Your task to perform on an android device: Check the settings for the Amazon Alexa app Image 0: 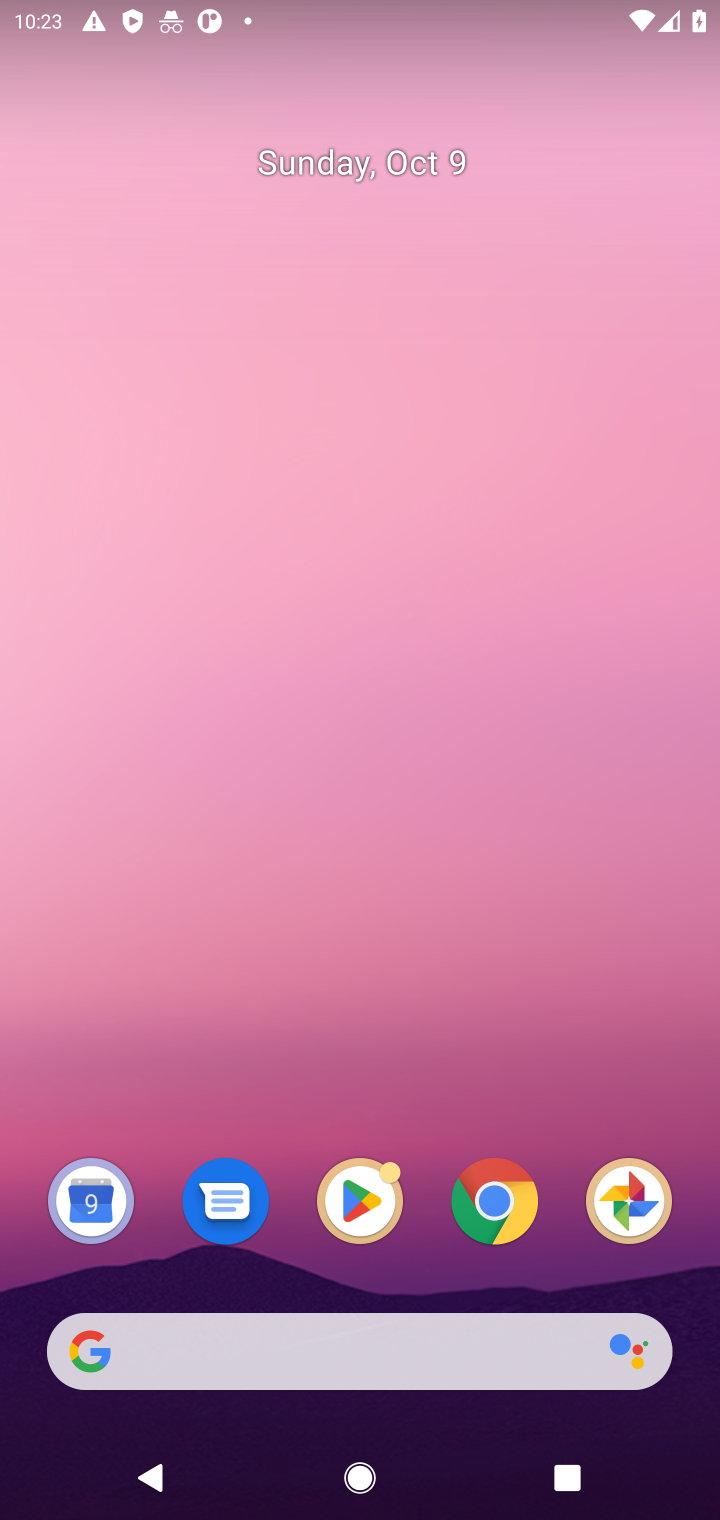
Step 0: click (509, 1204)
Your task to perform on an android device: Check the settings for the Amazon Alexa app Image 1: 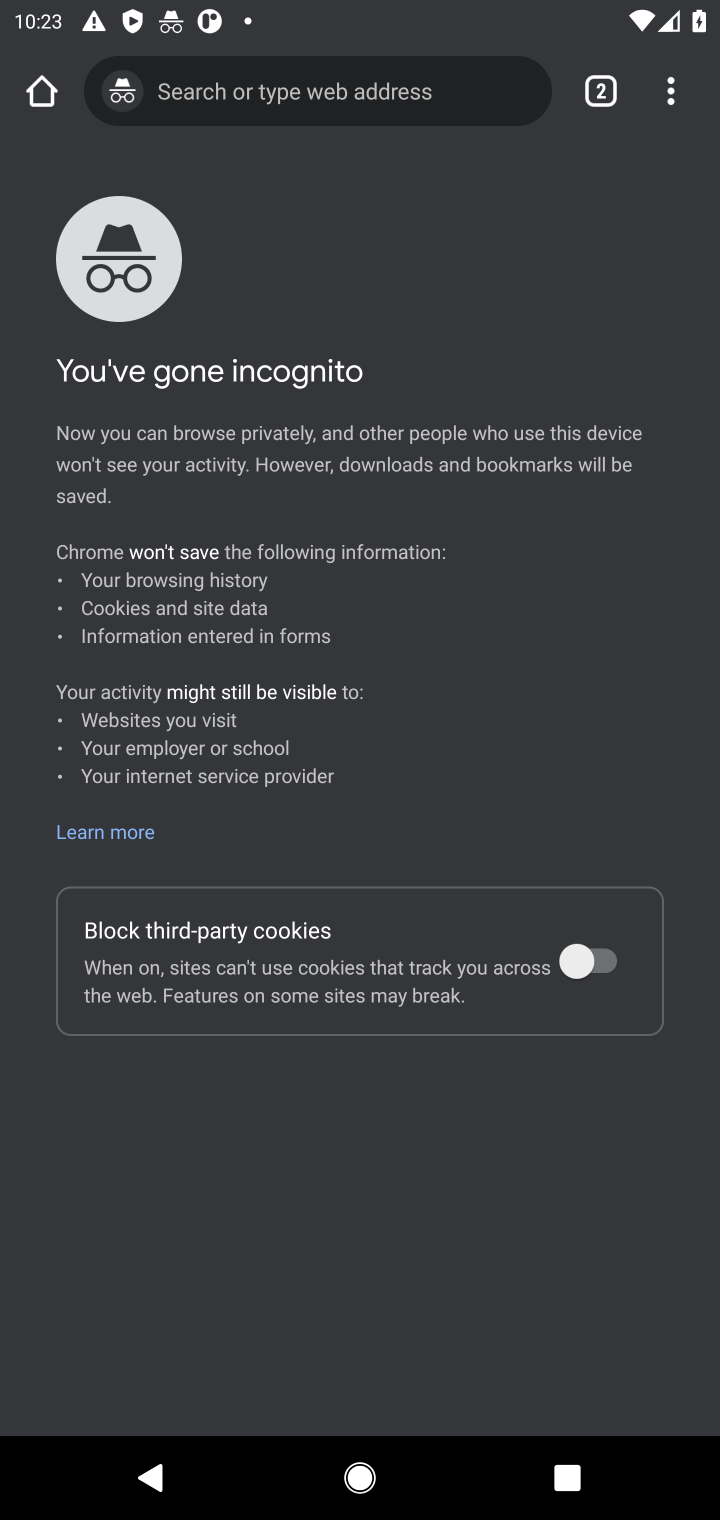
Step 1: press home button
Your task to perform on an android device: Check the settings for the Amazon Alexa app Image 2: 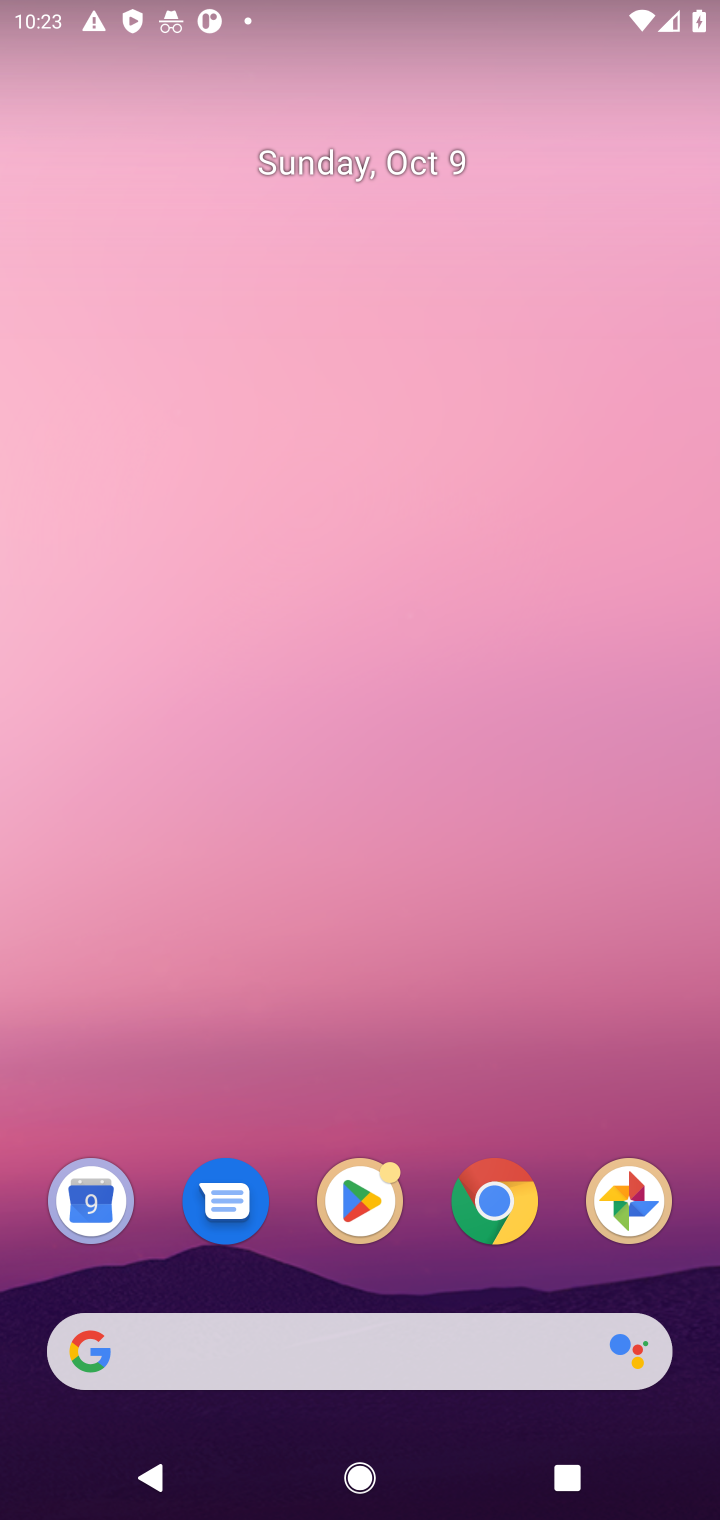
Step 2: click (377, 1223)
Your task to perform on an android device: Check the settings for the Amazon Alexa app Image 3: 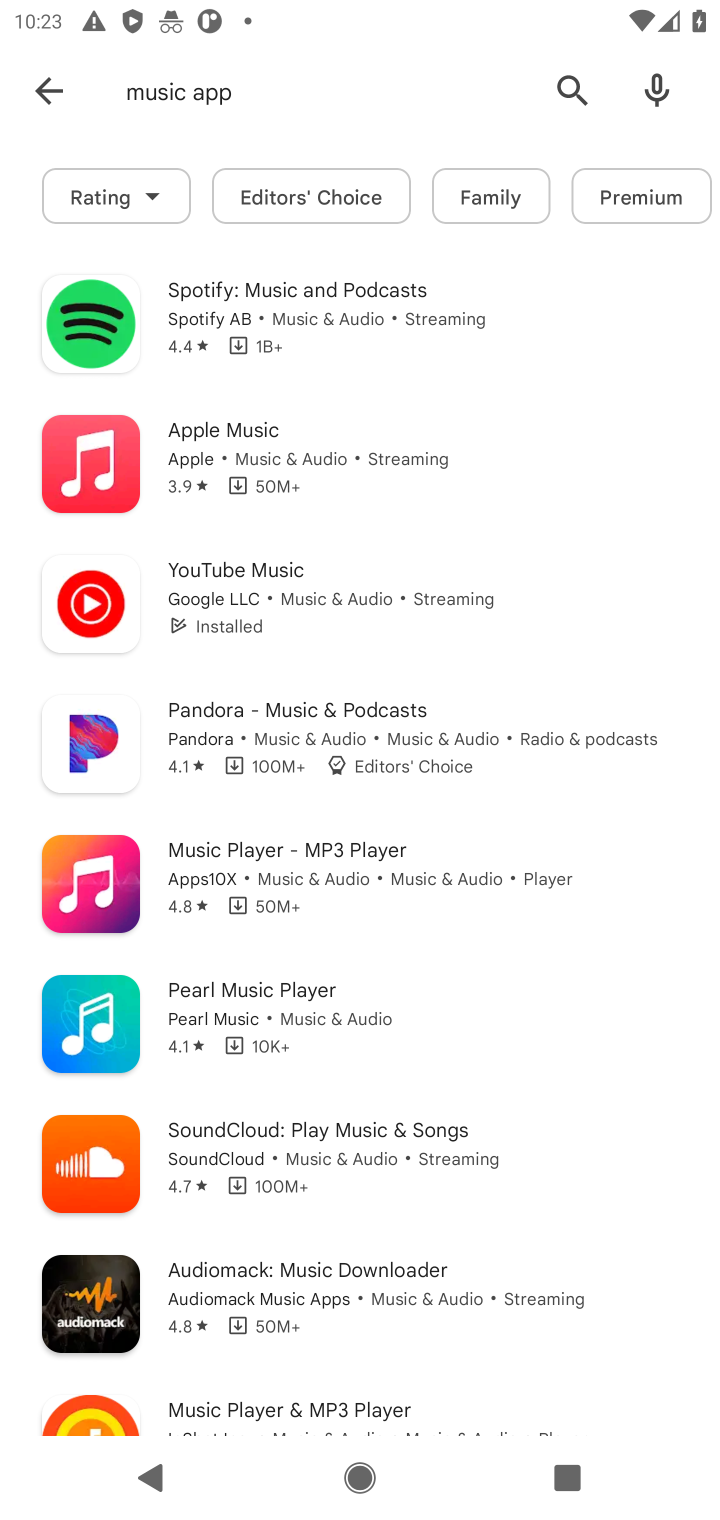
Step 3: click (293, 89)
Your task to perform on an android device: Check the settings for the Amazon Alexa app Image 4: 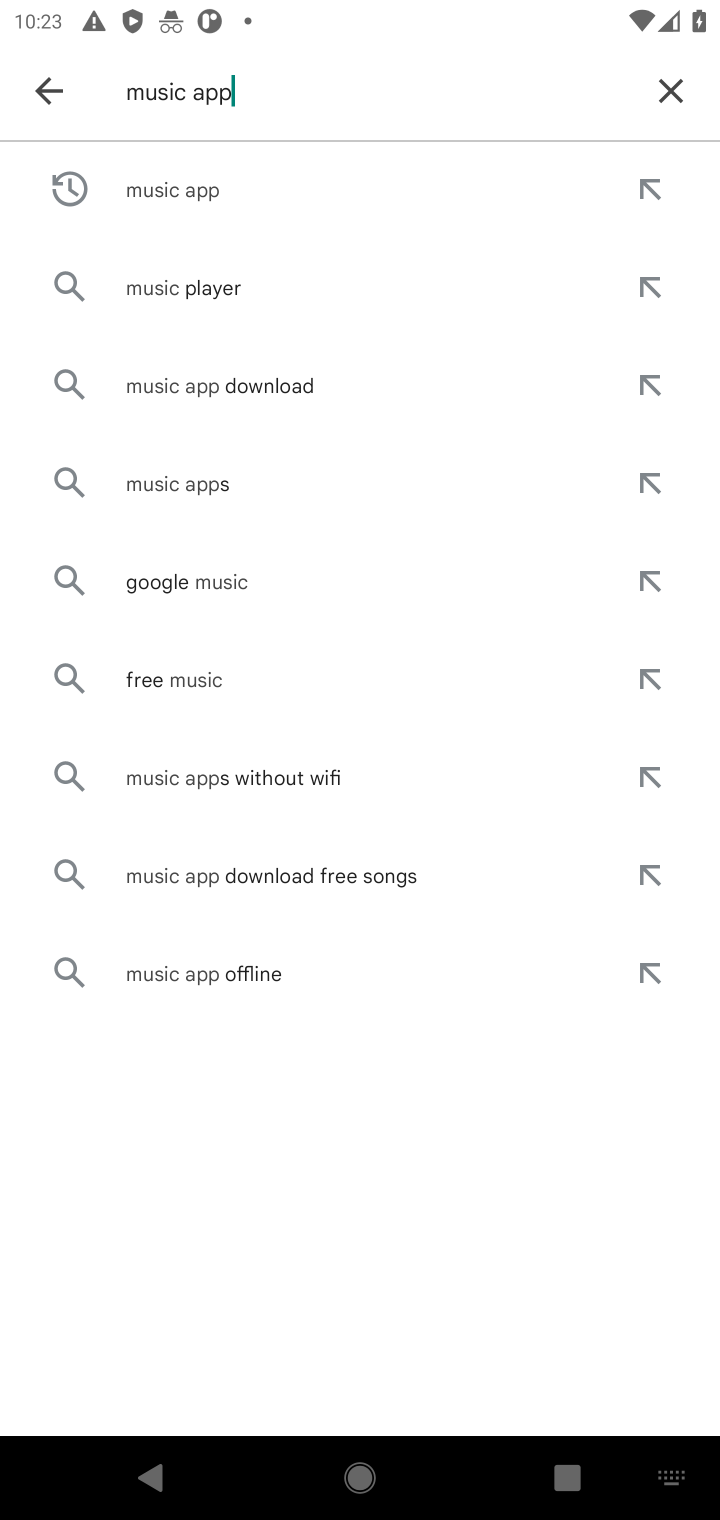
Step 4: click (674, 84)
Your task to perform on an android device: Check the settings for the Amazon Alexa app Image 5: 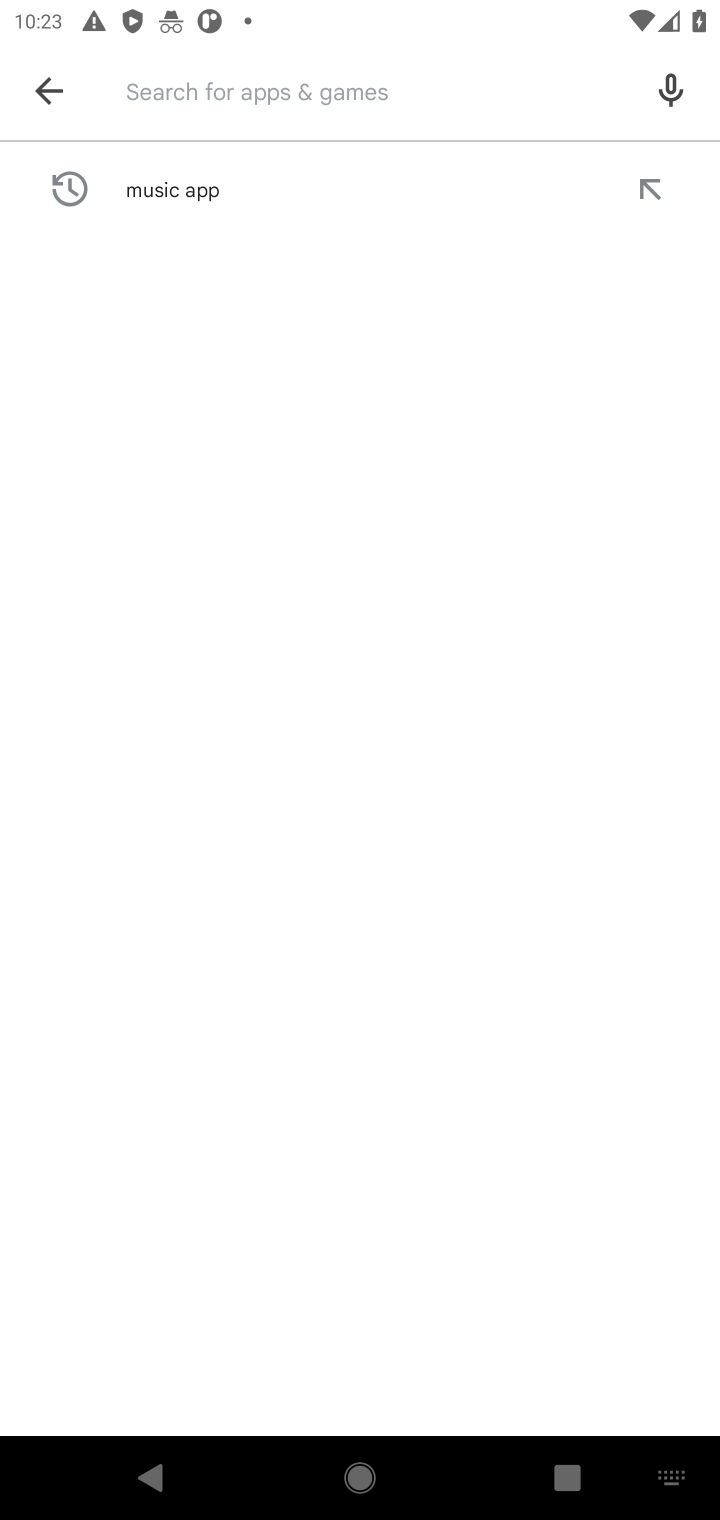
Step 5: type "amazon alexa"
Your task to perform on an android device: Check the settings for the Amazon Alexa app Image 6: 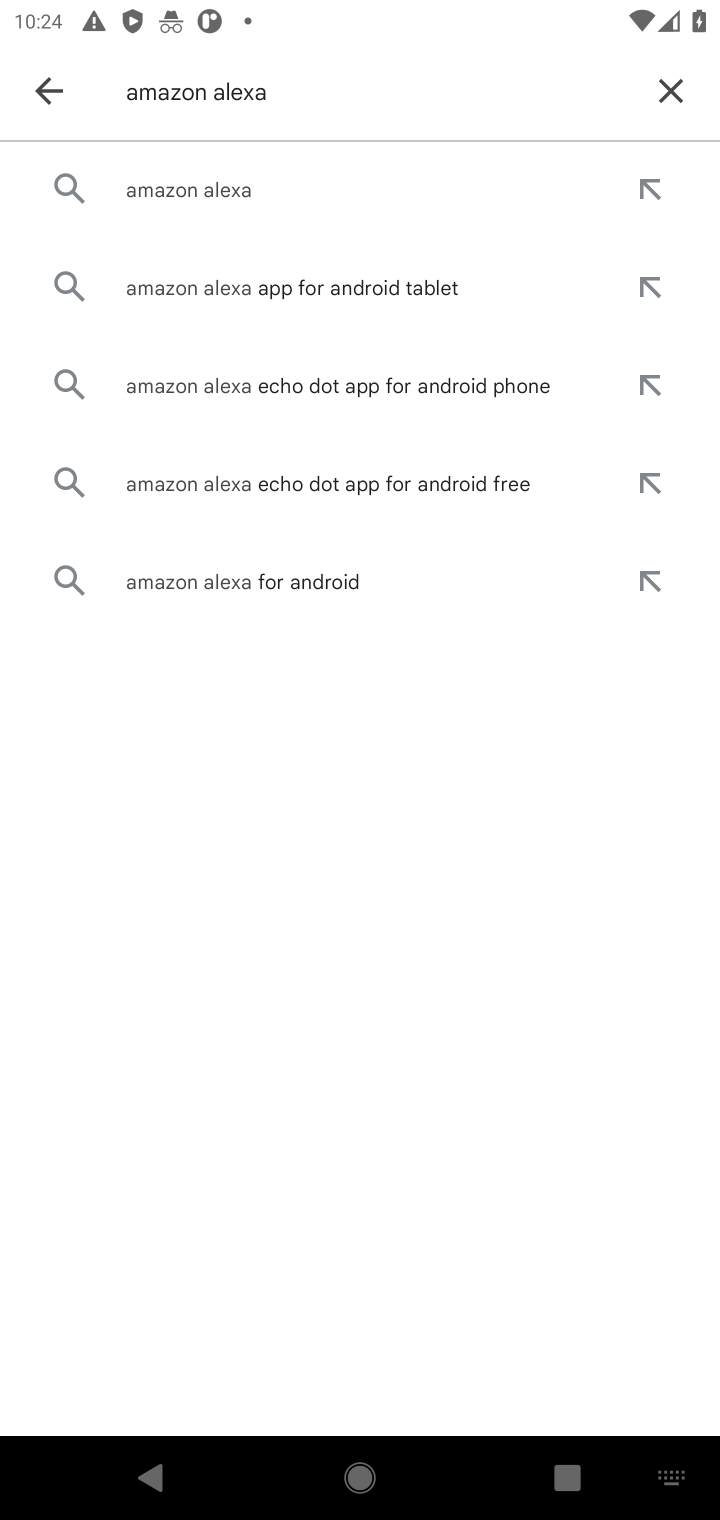
Step 6: click (267, 195)
Your task to perform on an android device: Check the settings for the Amazon Alexa app Image 7: 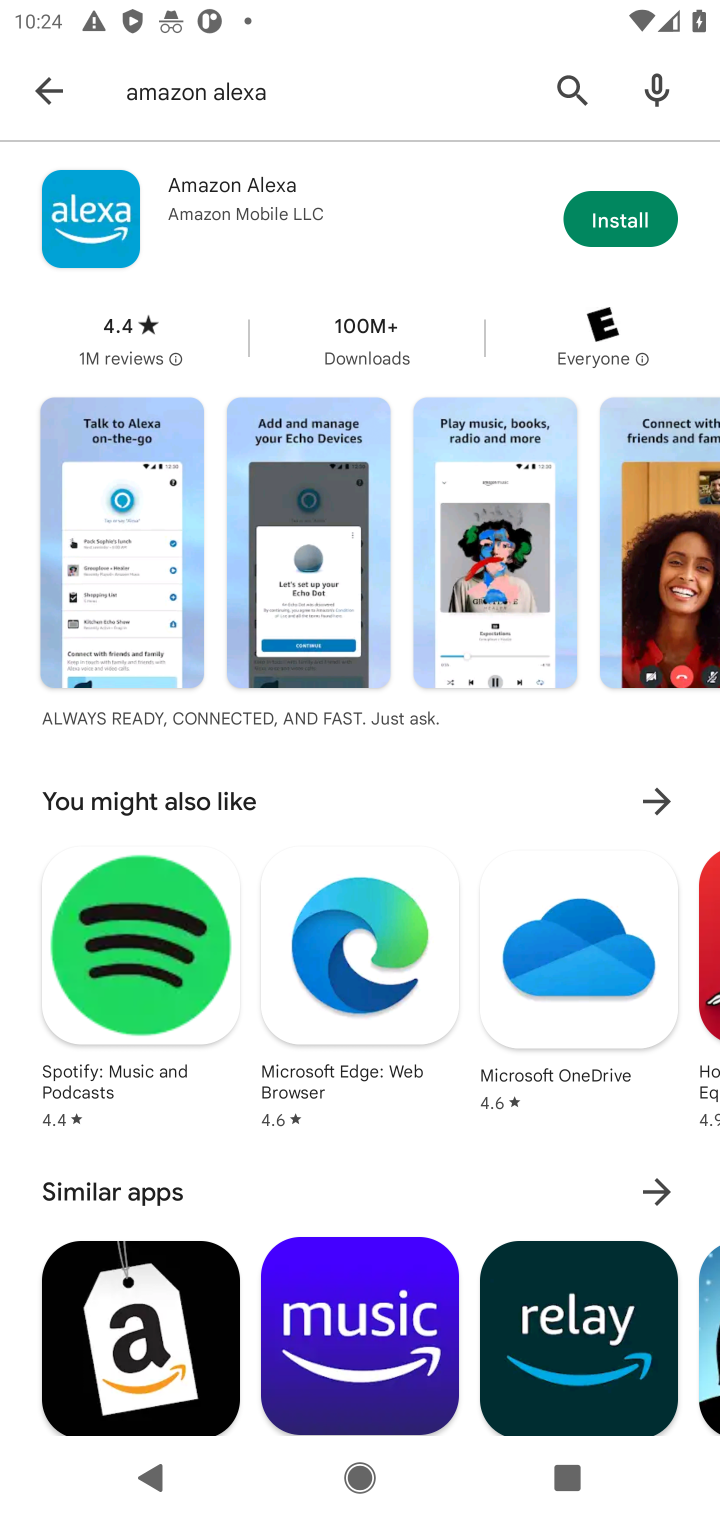
Step 7: task complete